Your task to perform on an android device: Open privacy settings Image 0: 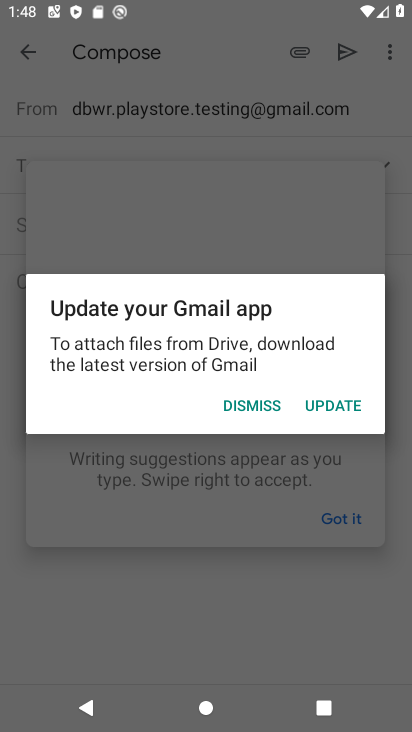
Step 0: press home button
Your task to perform on an android device: Open privacy settings Image 1: 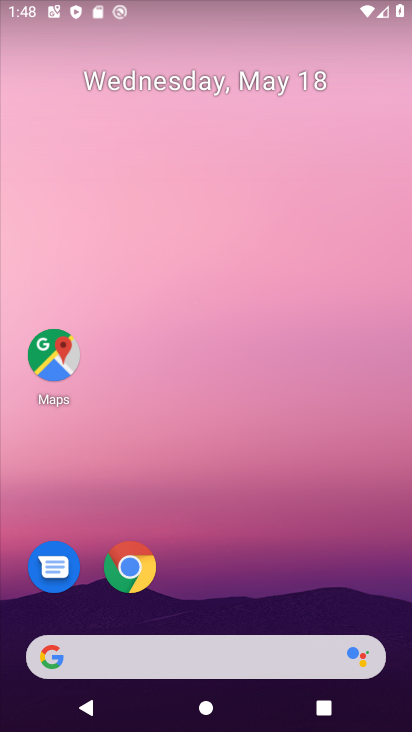
Step 1: drag from (240, 543) to (284, 108)
Your task to perform on an android device: Open privacy settings Image 2: 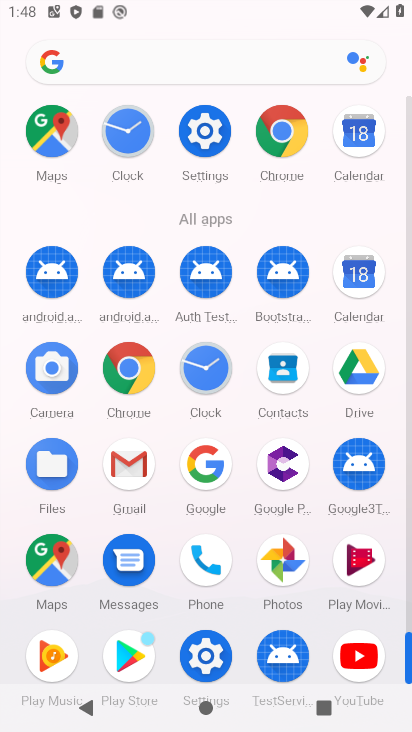
Step 2: click (213, 145)
Your task to perform on an android device: Open privacy settings Image 3: 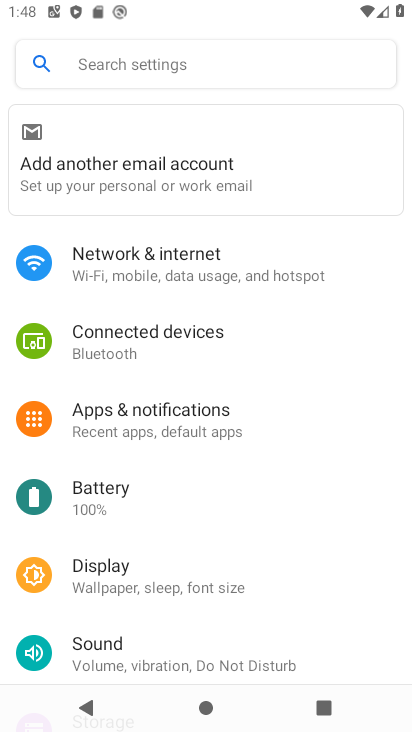
Step 3: drag from (212, 645) to (266, 253)
Your task to perform on an android device: Open privacy settings Image 4: 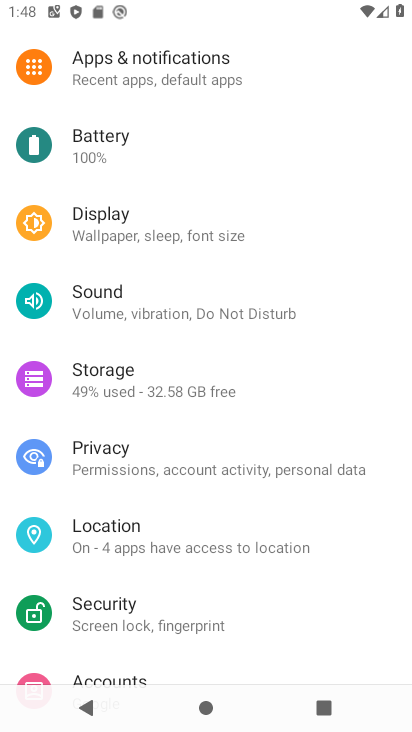
Step 4: click (125, 481)
Your task to perform on an android device: Open privacy settings Image 5: 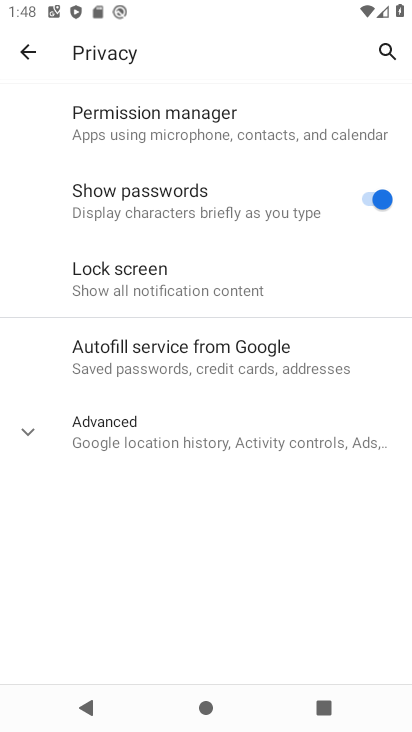
Step 5: task complete